Your task to perform on an android device: Open Google Chrome and open the bookmarks view Image 0: 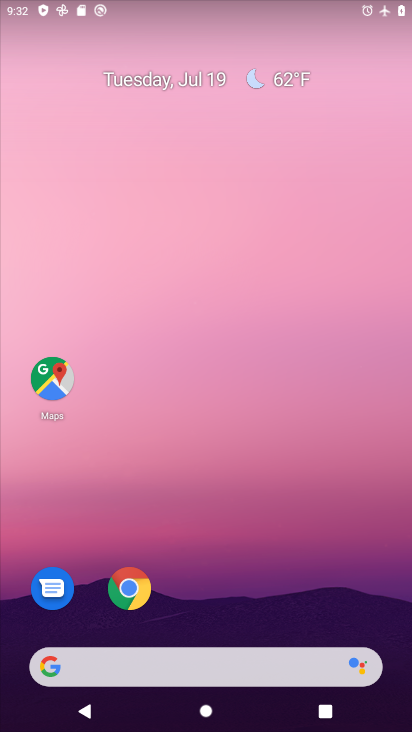
Step 0: drag from (267, 605) to (312, 16)
Your task to perform on an android device: Open Google Chrome and open the bookmarks view Image 1: 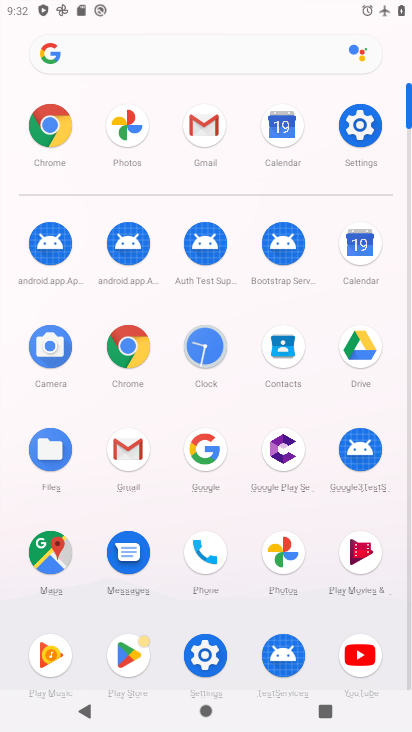
Step 1: click (64, 163)
Your task to perform on an android device: Open Google Chrome and open the bookmarks view Image 2: 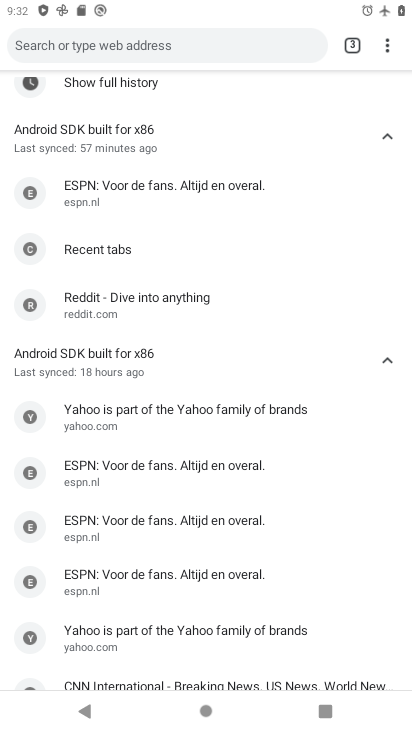
Step 2: drag from (397, 47) to (251, 175)
Your task to perform on an android device: Open Google Chrome and open the bookmarks view Image 3: 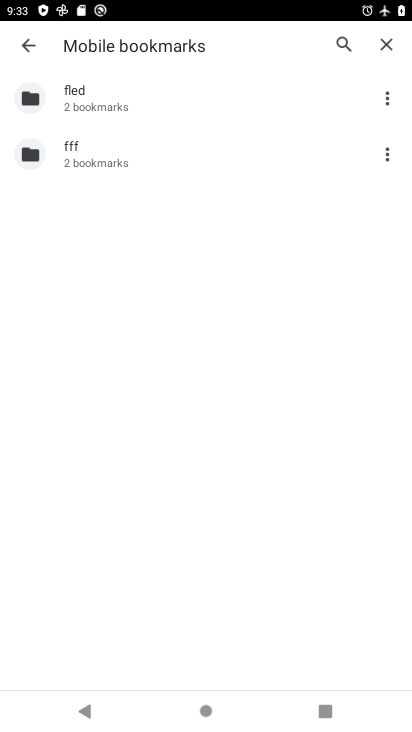
Step 3: click (174, 98)
Your task to perform on an android device: Open Google Chrome and open the bookmarks view Image 4: 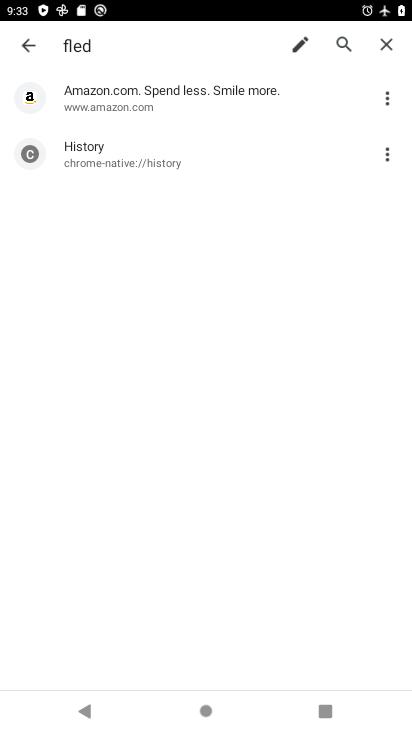
Step 4: task complete